Your task to perform on an android device: What's the weather? Image 0: 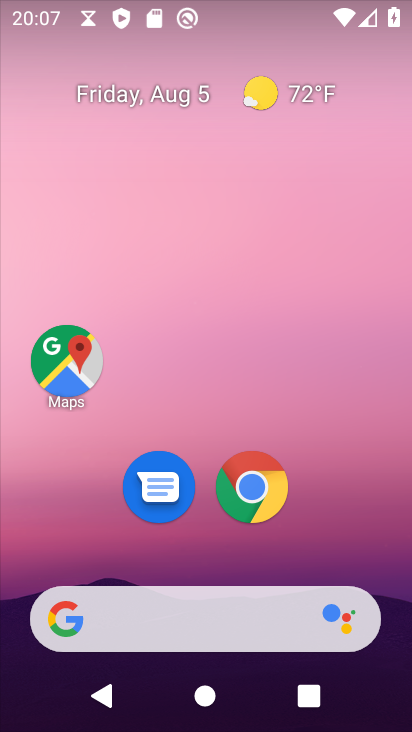
Step 0: click (130, 613)
Your task to perform on an android device: What's the weather? Image 1: 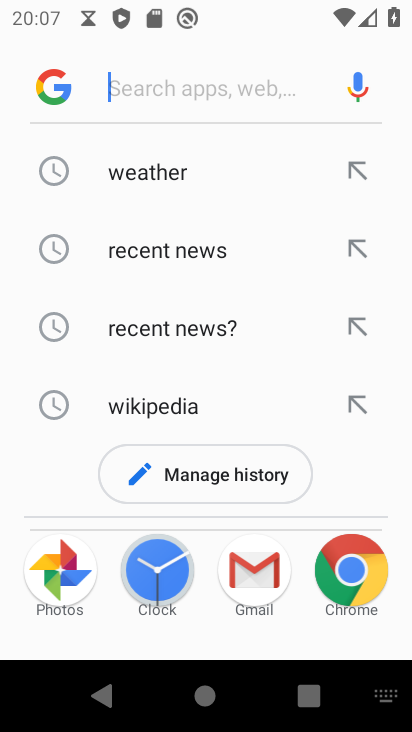
Step 1: click (174, 174)
Your task to perform on an android device: What's the weather? Image 2: 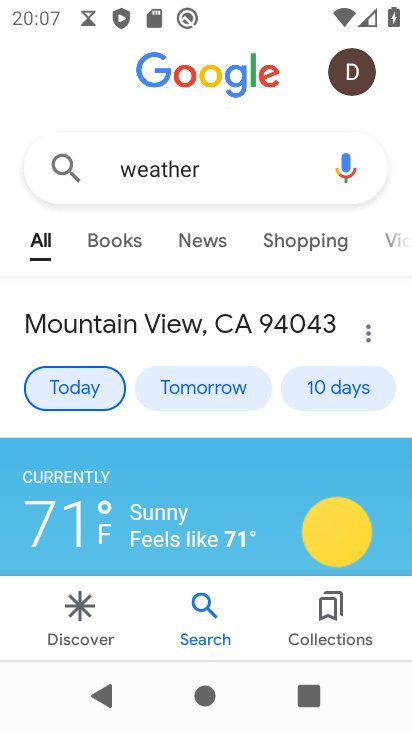
Step 2: task complete